Your task to perform on an android device: Open Yahoo.com Image 0: 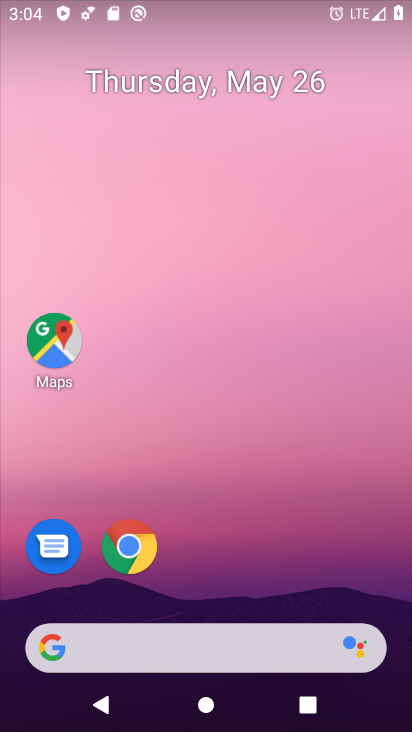
Step 0: click (129, 546)
Your task to perform on an android device: Open Yahoo.com Image 1: 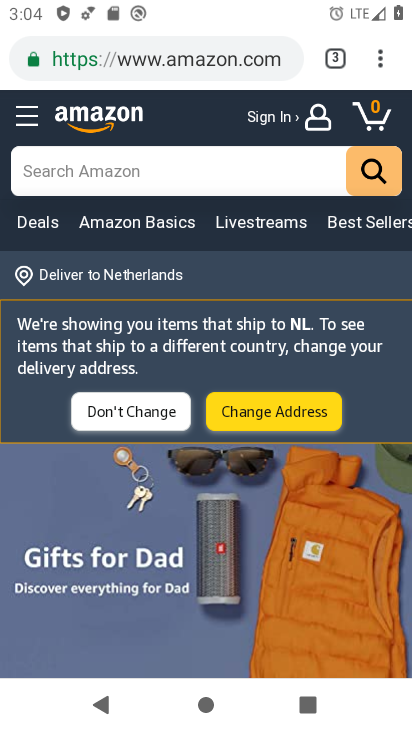
Step 1: click (334, 61)
Your task to perform on an android device: Open Yahoo.com Image 2: 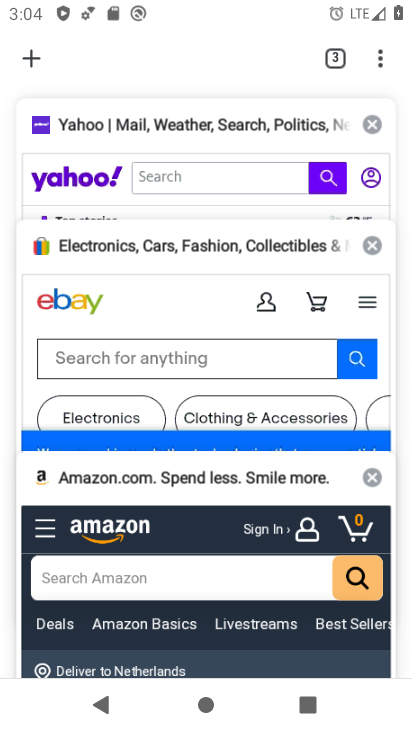
Step 2: click (124, 169)
Your task to perform on an android device: Open Yahoo.com Image 3: 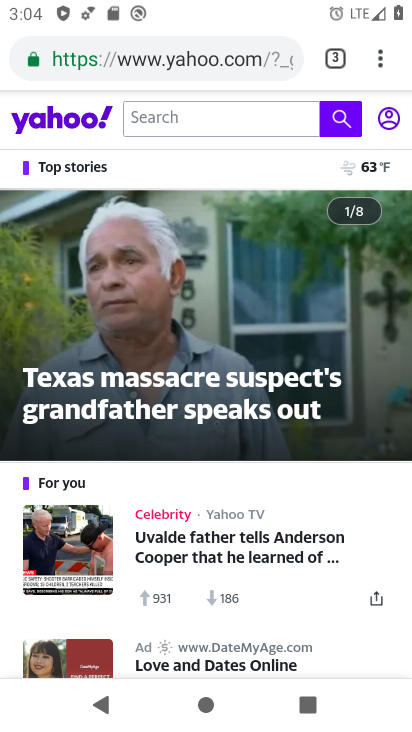
Step 3: task complete